Your task to perform on an android device: toggle notifications settings in the gmail app Image 0: 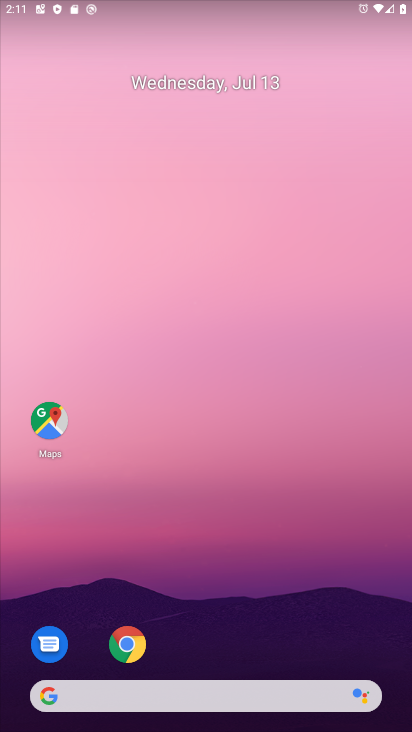
Step 0: drag from (182, 534) to (160, 29)
Your task to perform on an android device: toggle notifications settings in the gmail app Image 1: 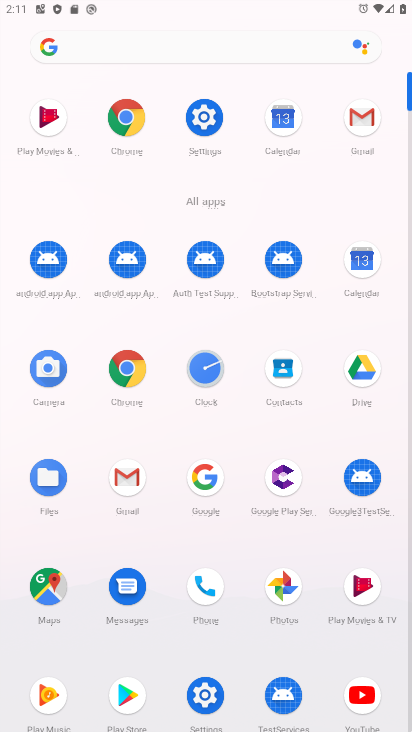
Step 1: click (133, 486)
Your task to perform on an android device: toggle notifications settings in the gmail app Image 2: 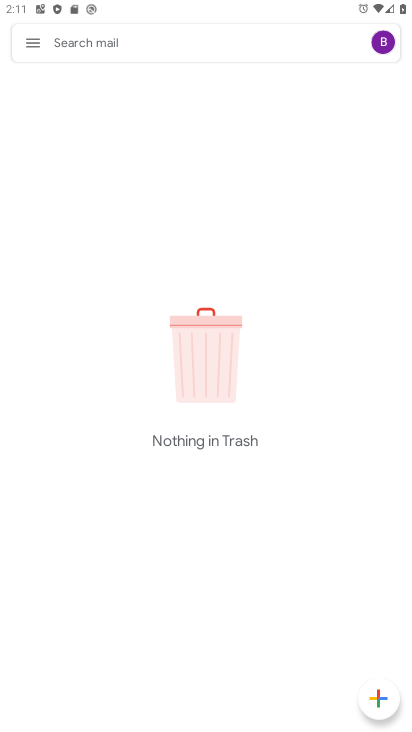
Step 2: drag from (29, 46) to (23, 291)
Your task to perform on an android device: toggle notifications settings in the gmail app Image 3: 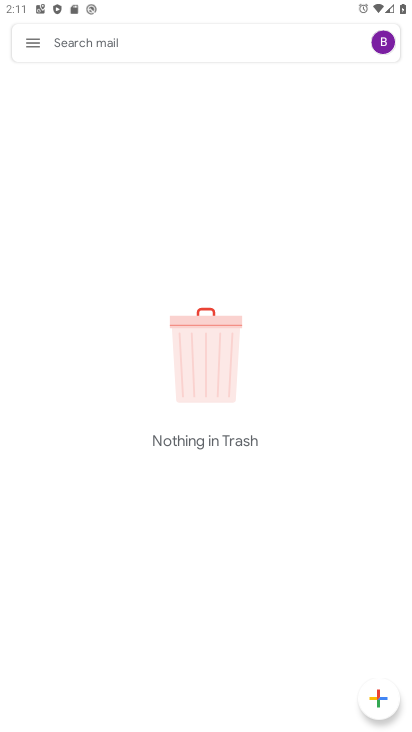
Step 3: click (32, 46)
Your task to perform on an android device: toggle notifications settings in the gmail app Image 4: 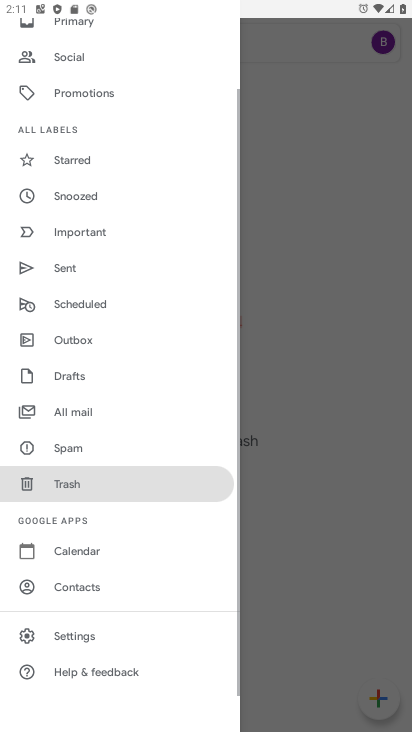
Step 4: click (67, 630)
Your task to perform on an android device: toggle notifications settings in the gmail app Image 5: 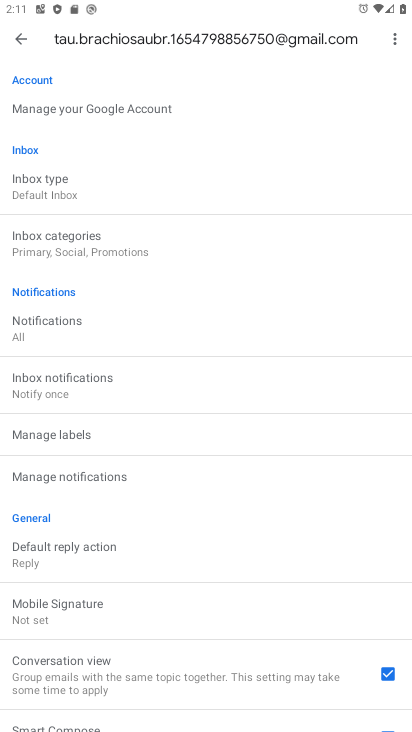
Step 5: click (29, 42)
Your task to perform on an android device: toggle notifications settings in the gmail app Image 6: 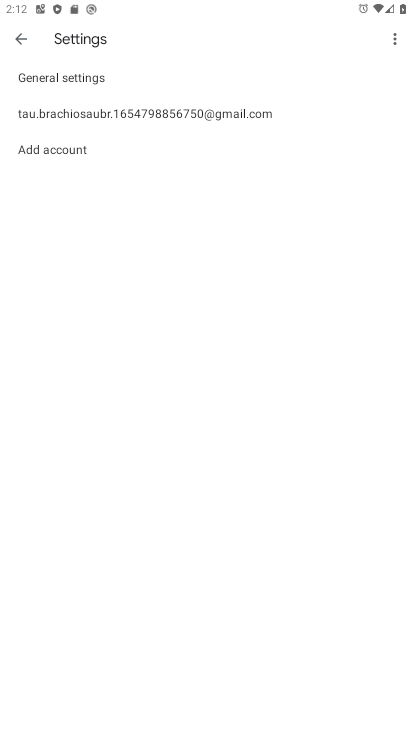
Step 6: click (45, 85)
Your task to perform on an android device: toggle notifications settings in the gmail app Image 7: 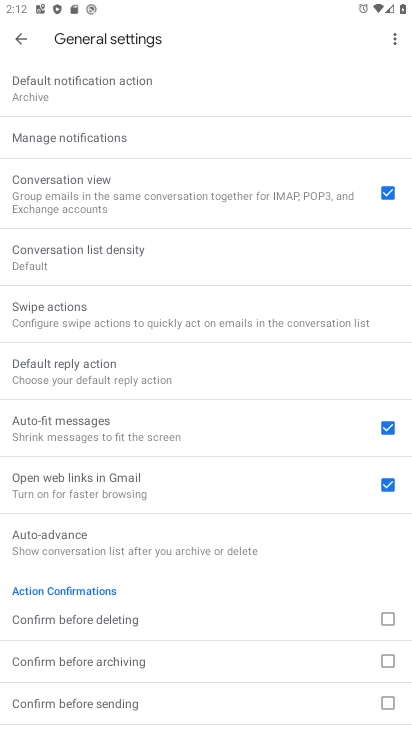
Step 7: click (82, 146)
Your task to perform on an android device: toggle notifications settings in the gmail app Image 8: 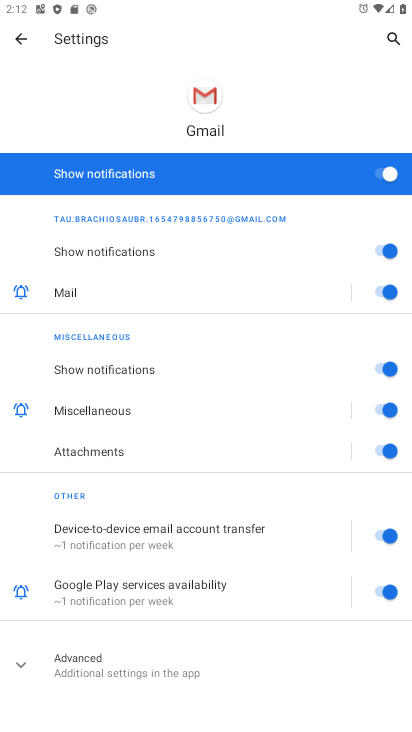
Step 8: click (384, 177)
Your task to perform on an android device: toggle notifications settings in the gmail app Image 9: 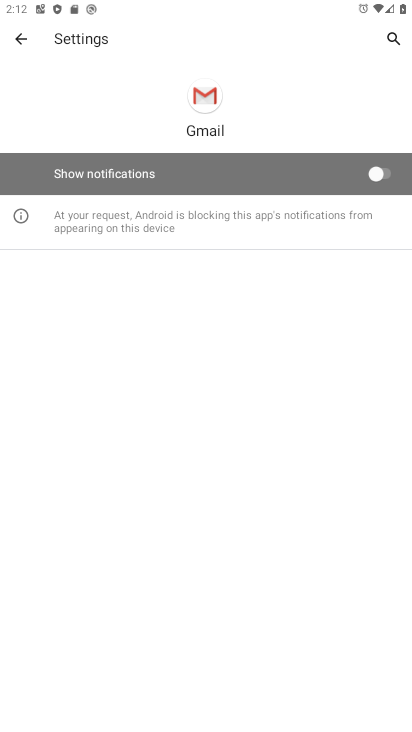
Step 9: task complete